Your task to perform on an android device: Show the shopping cart on bestbuy.com. Add "apple airpods" to the cart on bestbuy.com Image 0: 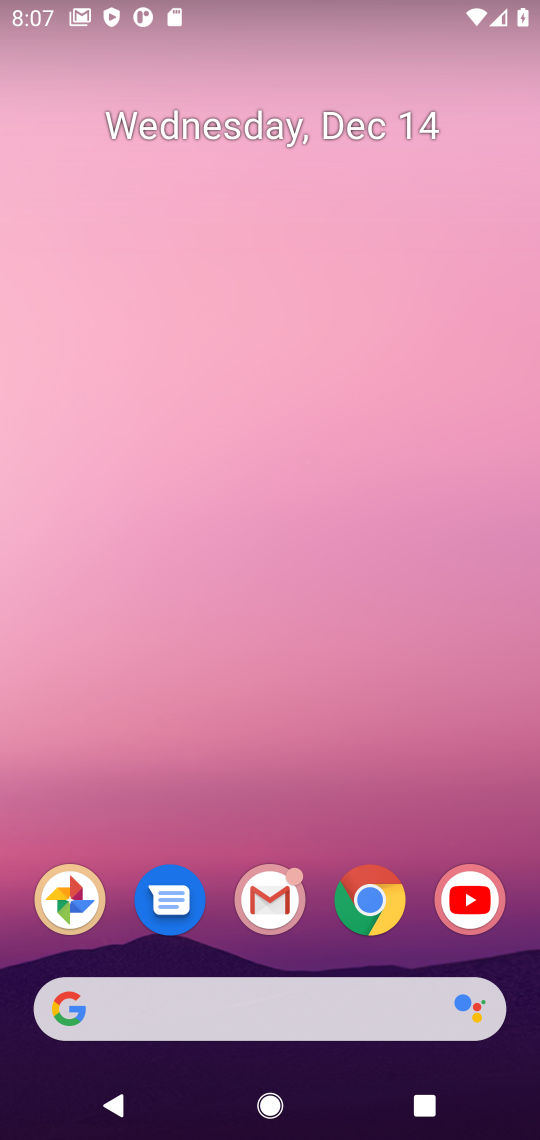
Step 0: click (358, 898)
Your task to perform on an android device: Show the shopping cart on bestbuy.com. Add "apple airpods" to the cart on bestbuy.com Image 1: 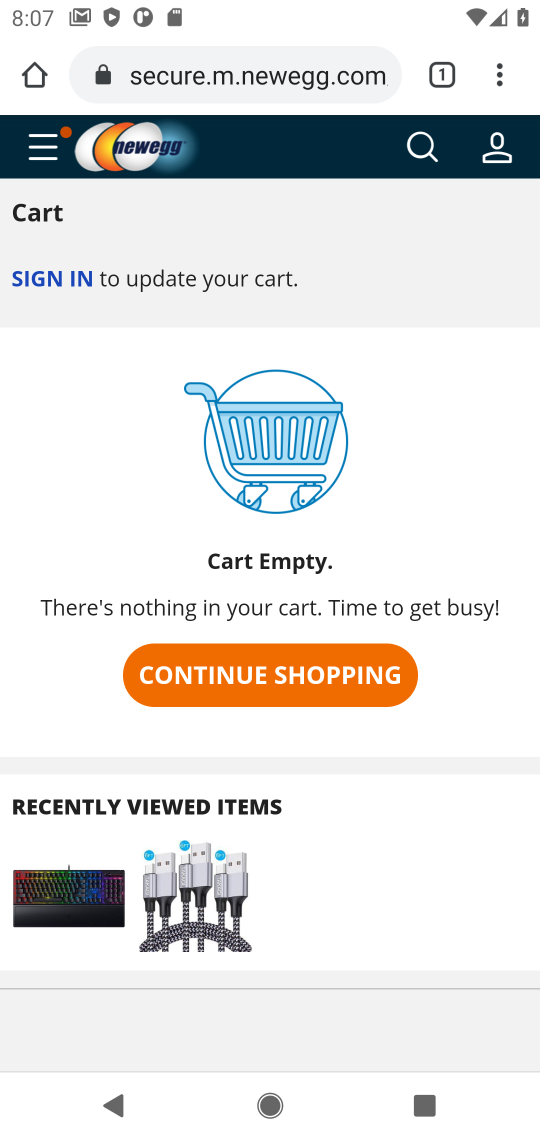
Step 1: click (218, 77)
Your task to perform on an android device: Show the shopping cart on bestbuy.com. Add "apple airpods" to the cart on bestbuy.com Image 2: 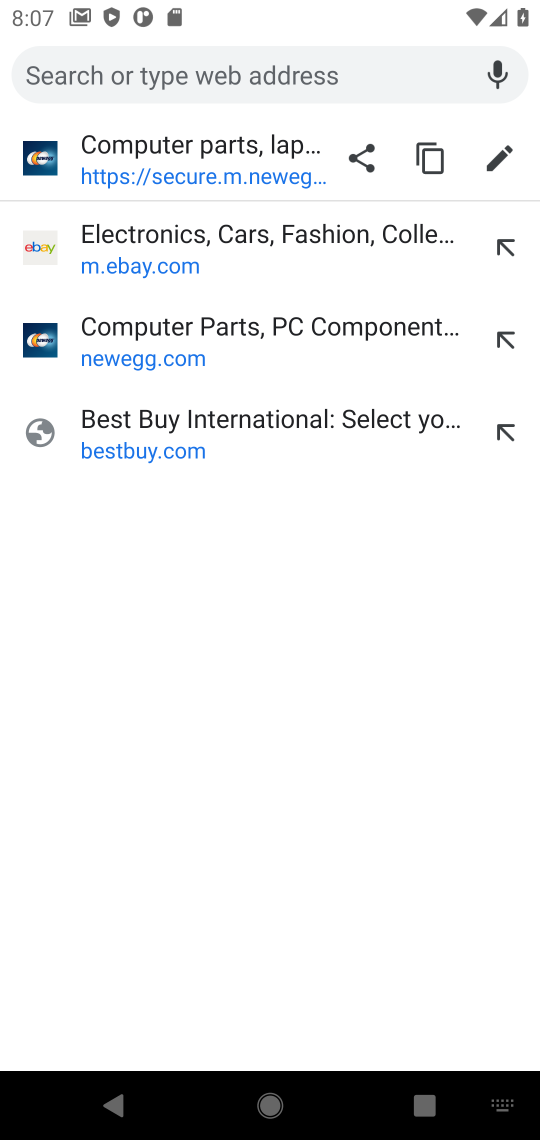
Step 2: click (129, 427)
Your task to perform on an android device: Show the shopping cart on bestbuy.com. Add "apple airpods" to the cart on bestbuy.com Image 3: 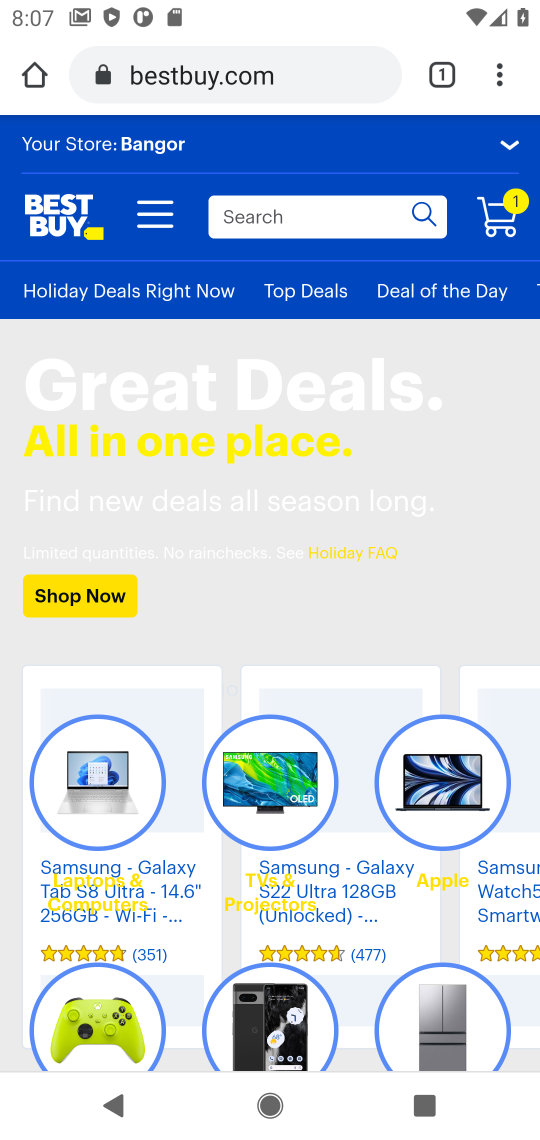
Step 3: click (506, 227)
Your task to perform on an android device: Show the shopping cart on bestbuy.com. Add "apple airpods" to the cart on bestbuy.com Image 4: 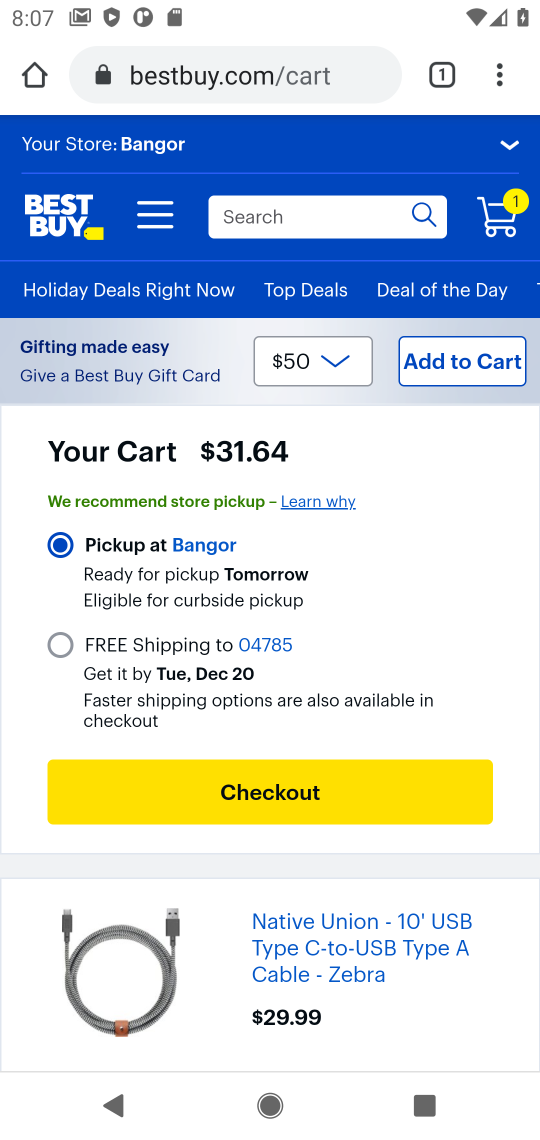
Step 4: click (255, 233)
Your task to perform on an android device: Show the shopping cart on bestbuy.com. Add "apple airpods" to the cart on bestbuy.com Image 5: 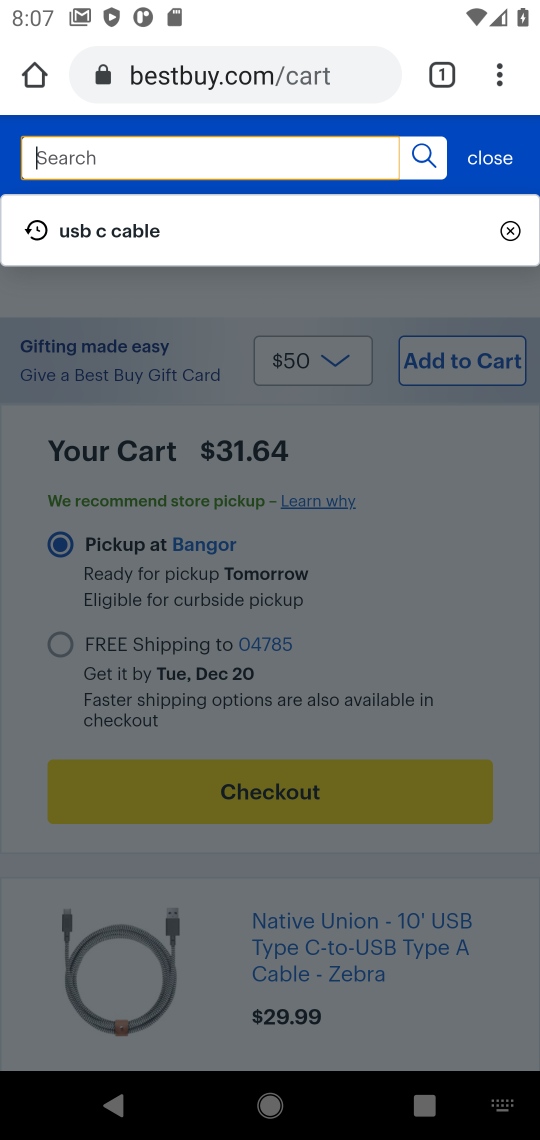
Step 5: type "apple airpods"
Your task to perform on an android device: Show the shopping cart on bestbuy.com. Add "apple airpods" to the cart on bestbuy.com Image 6: 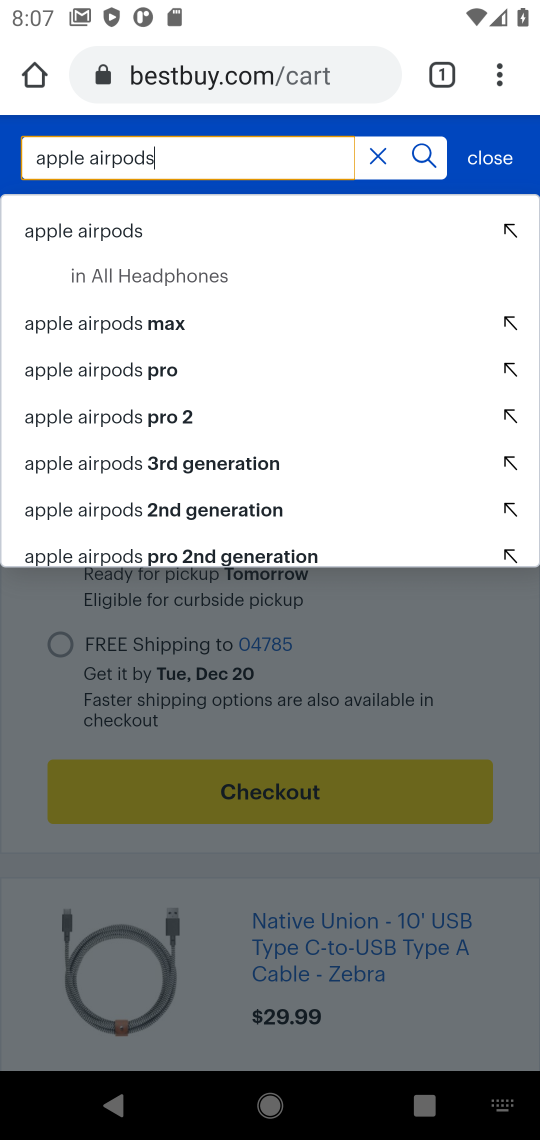
Step 6: click (85, 238)
Your task to perform on an android device: Show the shopping cart on bestbuy.com. Add "apple airpods" to the cart on bestbuy.com Image 7: 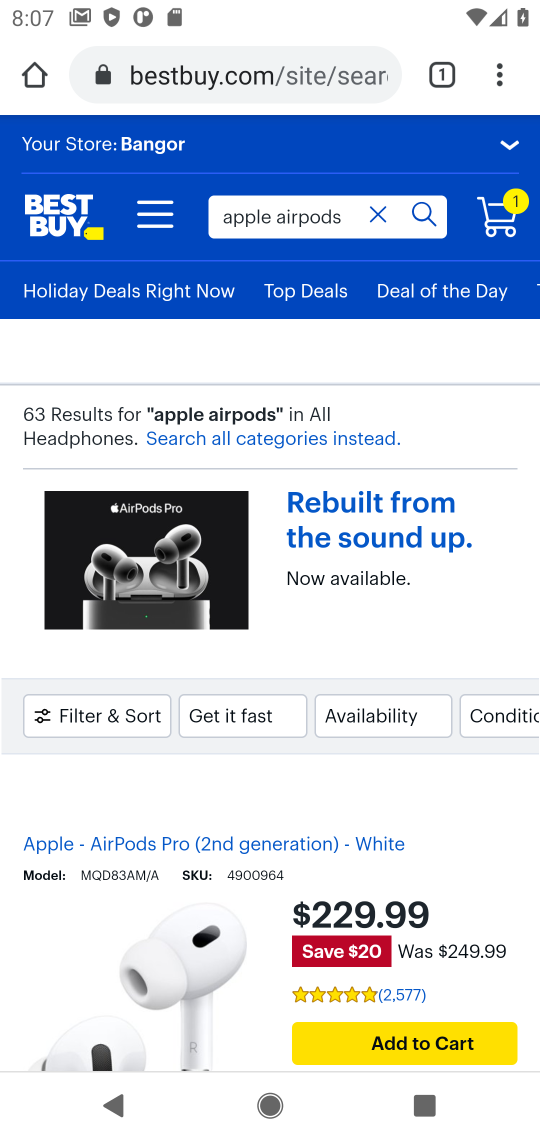
Step 7: drag from (123, 936) to (126, 503)
Your task to perform on an android device: Show the shopping cart on bestbuy.com. Add "apple airpods" to the cart on bestbuy.com Image 8: 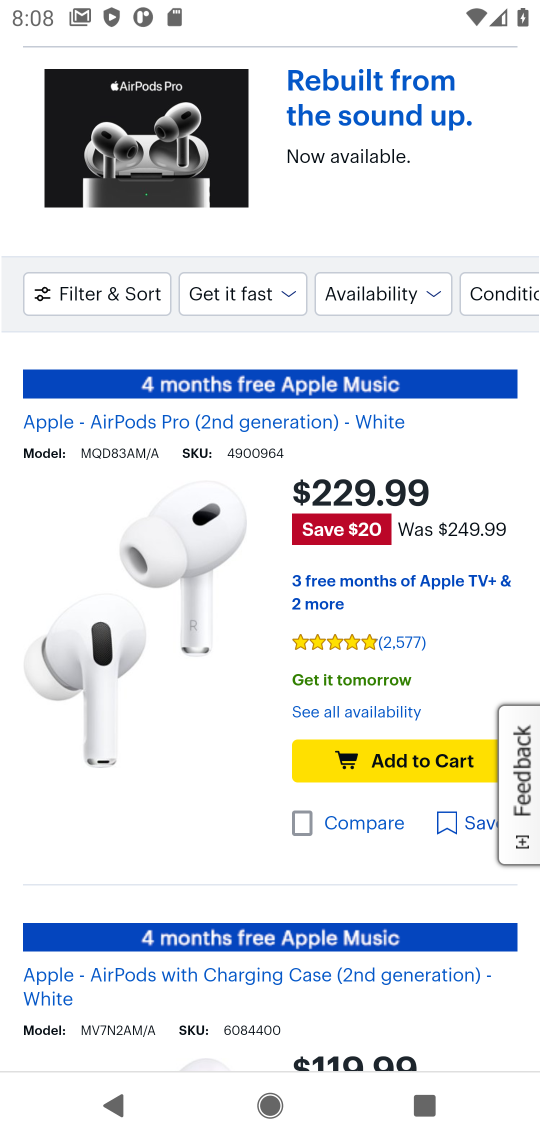
Step 8: click (346, 748)
Your task to perform on an android device: Show the shopping cart on bestbuy.com. Add "apple airpods" to the cart on bestbuy.com Image 9: 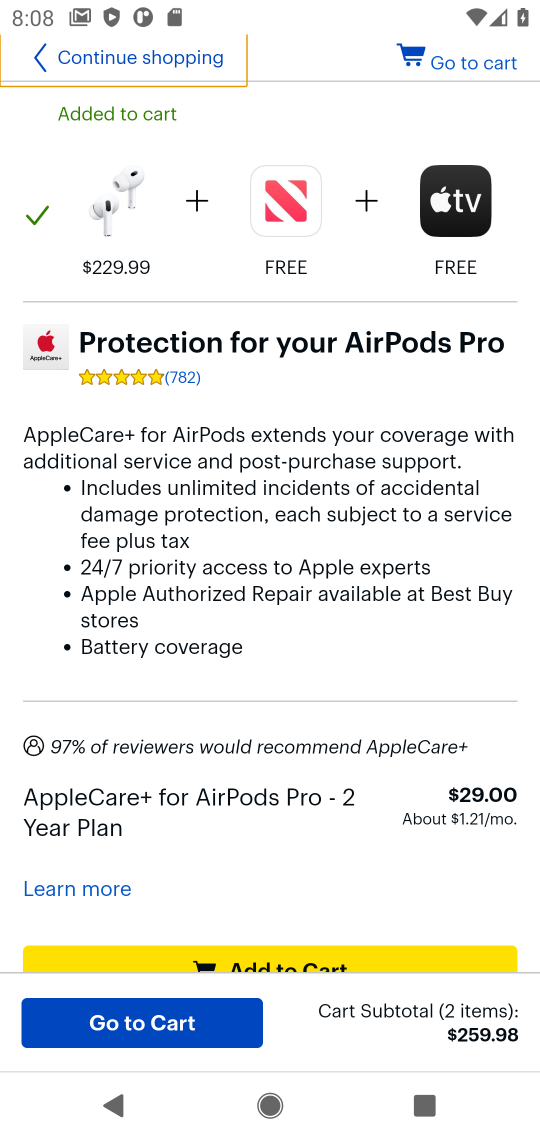
Step 9: task complete